Your task to perform on an android device: Is it going to rain tomorrow? Image 0: 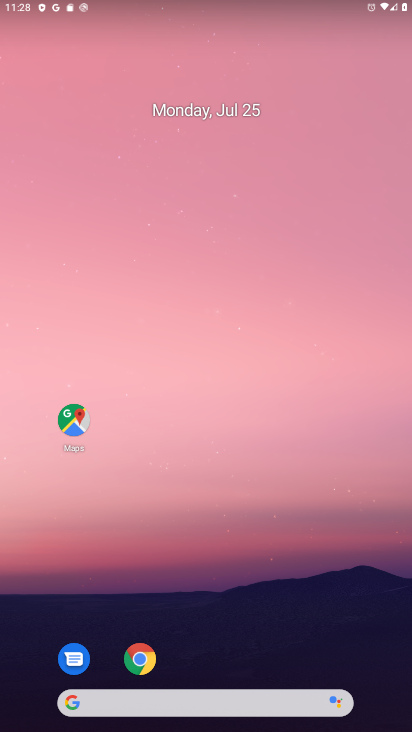
Step 0: click (161, 704)
Your task to perform on an android device: Is it going to rain tomorrow? Image 1: 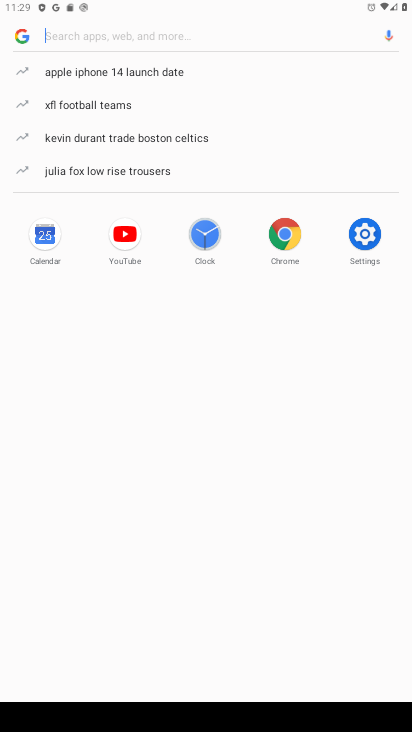
Step 1: type "is it going to rain tommorrow"
Your task to perform on an android device: Is it going to rain tomorrow? Image 2: 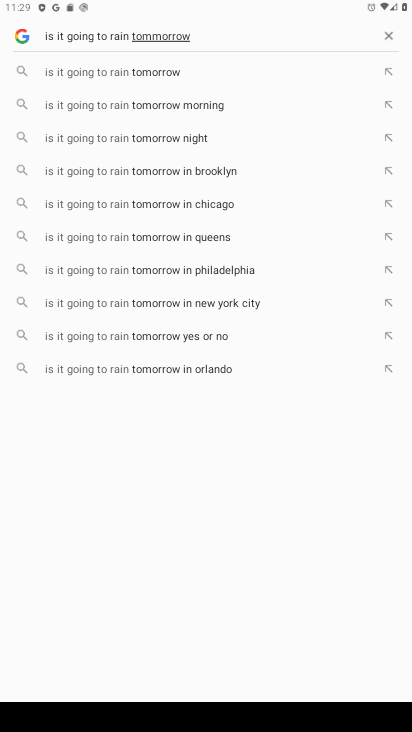
Step 2: click (150, 83)
Your task to perform on an android device: Is it going to rain tomorrow? Image 3: 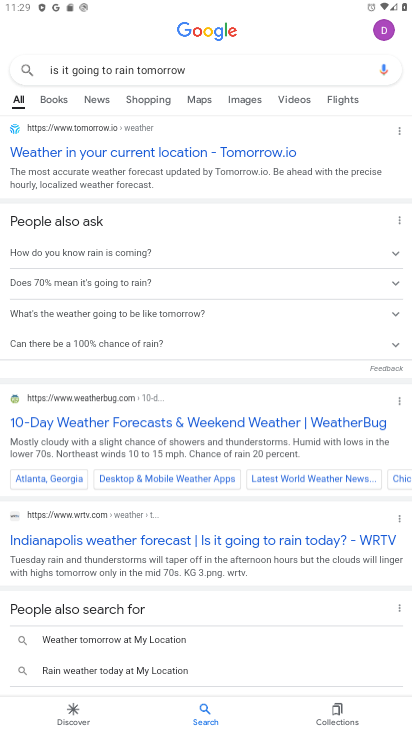
Step 3: click (106, 420)
Your task to perform on an android device: Is it going to rain tomorrow? Image 4: 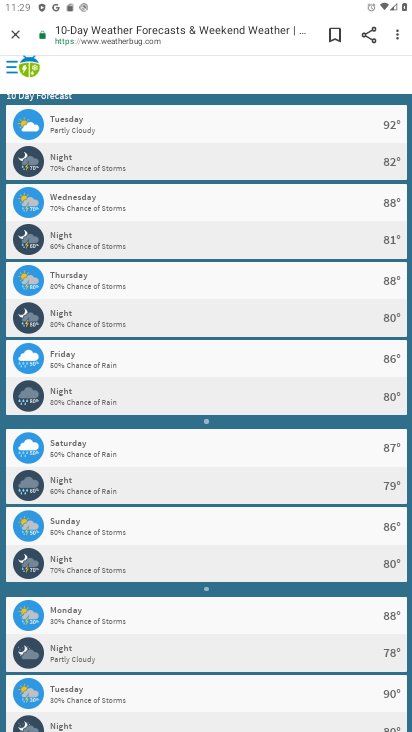
Step 4: task complete